Your task to perform on an android device: open a bookmark in the chrome app Image 0: 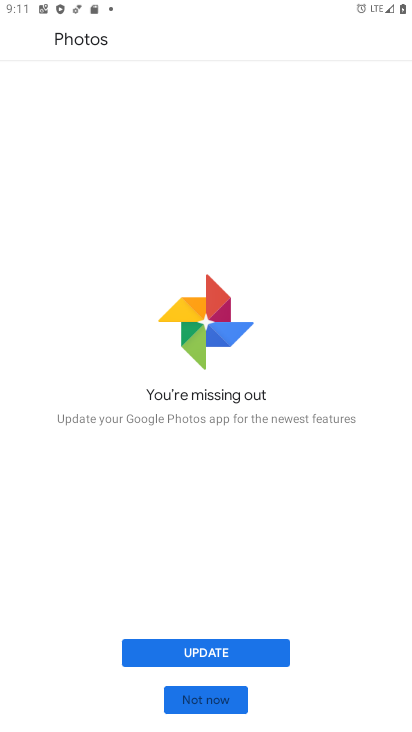
Step 0: press home button
Your task to perform on an android device: open a bookmark in the chrome app Image 1: 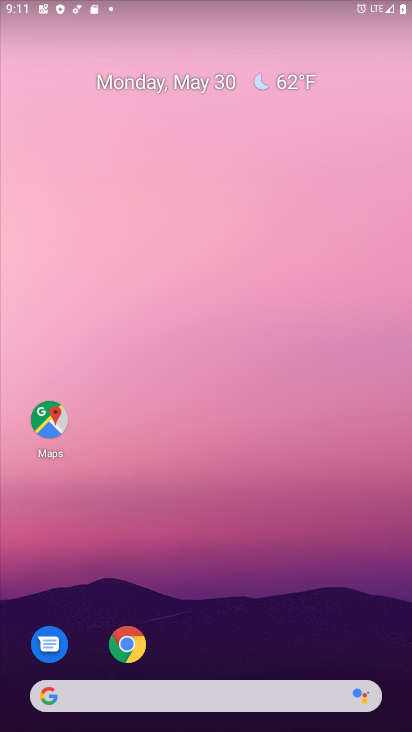
Step 1: click (127, 643)
Your task to perform on an android device: open a bookmark in the chrome app Image 2: 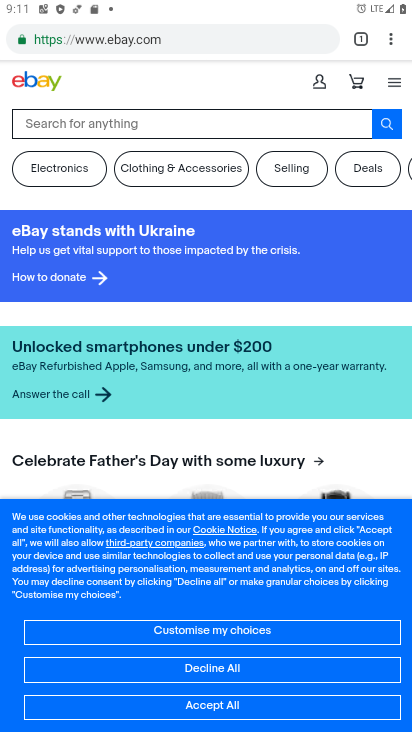
Step 2: click (391, 43)
Your task to perform on an android device: open a bookmark in the chrome app Image 3: 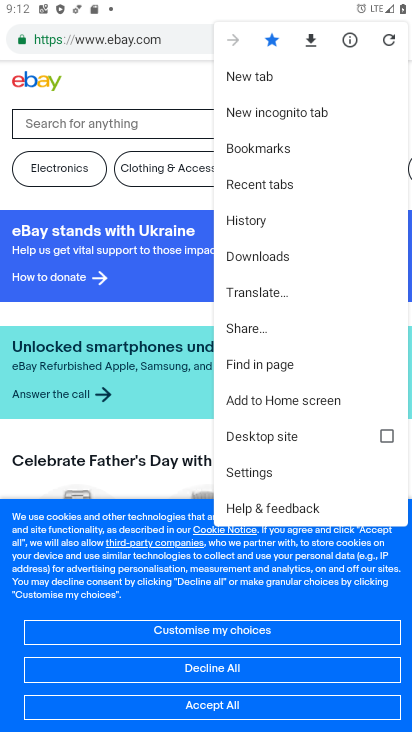
Step 3: click (248, 145)
Your task to perform on an android device: open a bookmark in the chrome app Image 4: 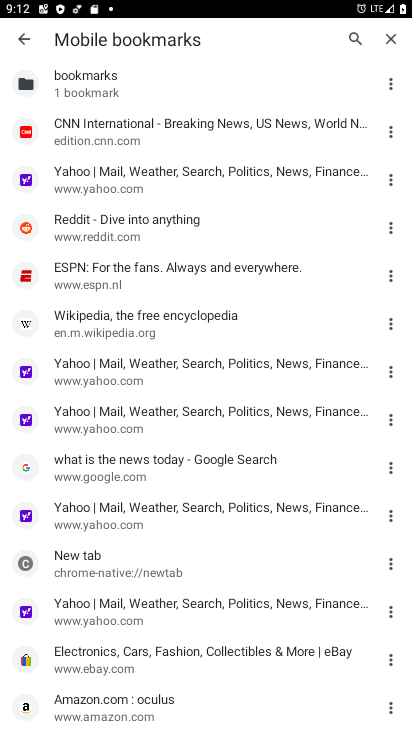
Step 4: task complete